Your task to perform on an android device: change timer sound Image 0: 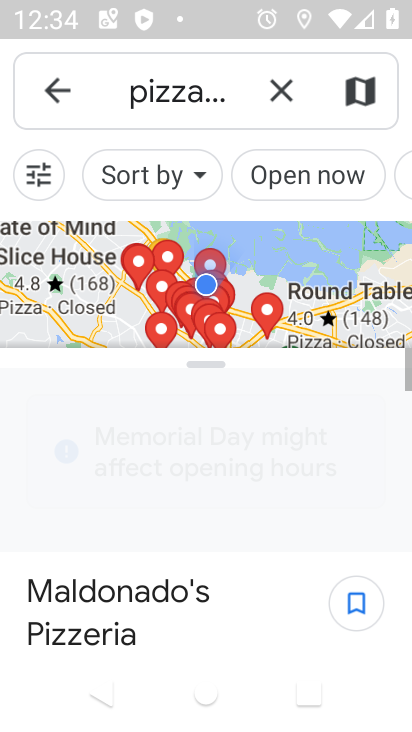
Step 0: press home button
Your task to perform on an android device: change timer sound Image 1: 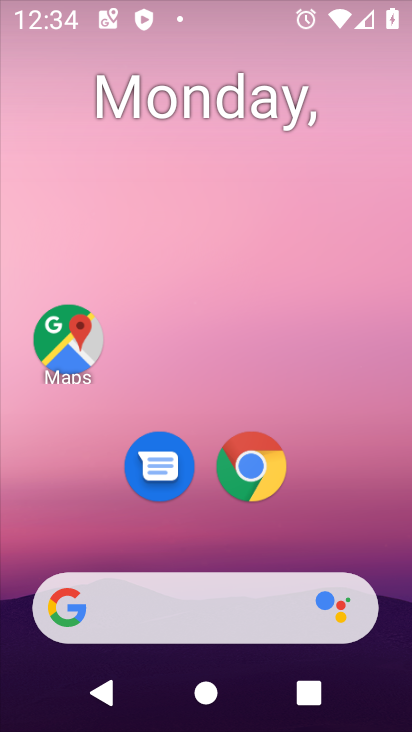
Step 1: drag from (391, 634) to (242, 31)
Your task to perform on an android device: change timer sound Image 2: 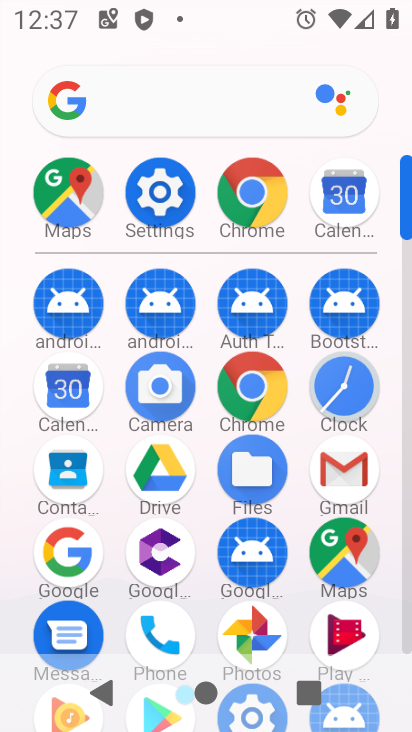
Step 2: click (345, 376)
Your task to perform on an android device: change timer sound Image 3: 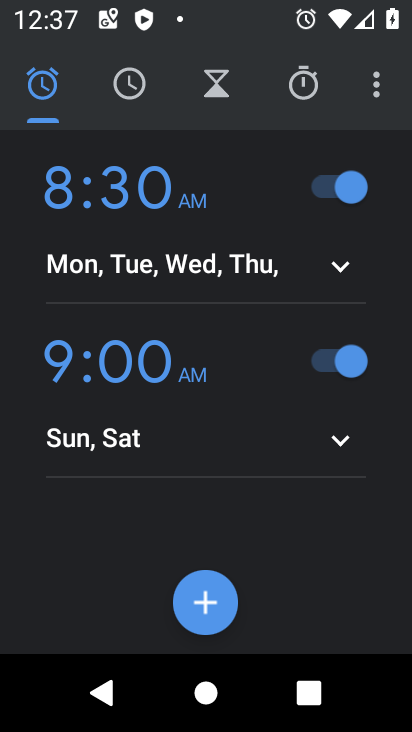
Step 3: click (380, 70)
Your task to perform on an android device: change timer sound Image 4: 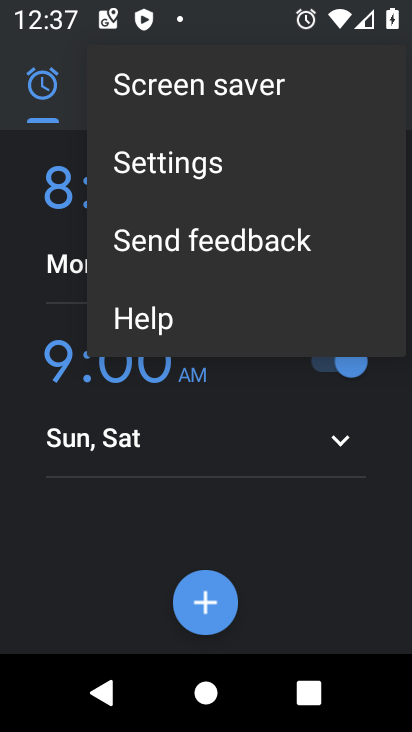
Step 4: click (164, 172)
Your task to perform on an android device: change timer sound Image 5: 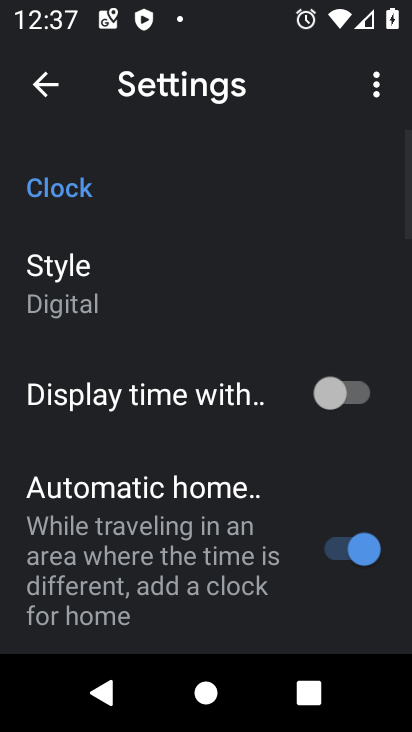
Step 5: drag from (131, 622) to (163, 89)
Your task to perform on an android device: change timer sound Image 6: 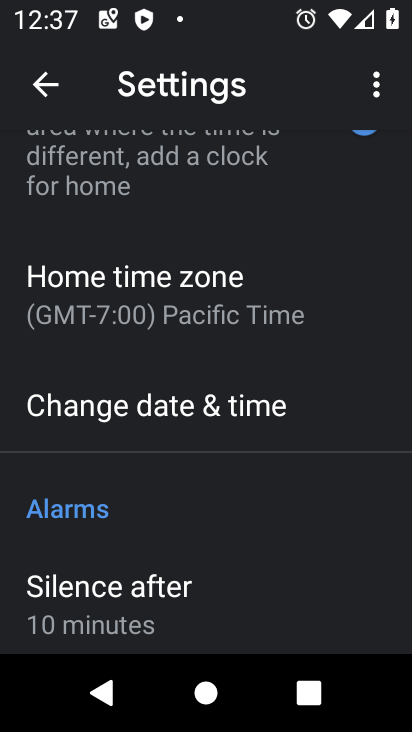
Step 6: drag from (124, 605) to (158, 170)
Your task to perform on an android device: change timer sound Image 7: 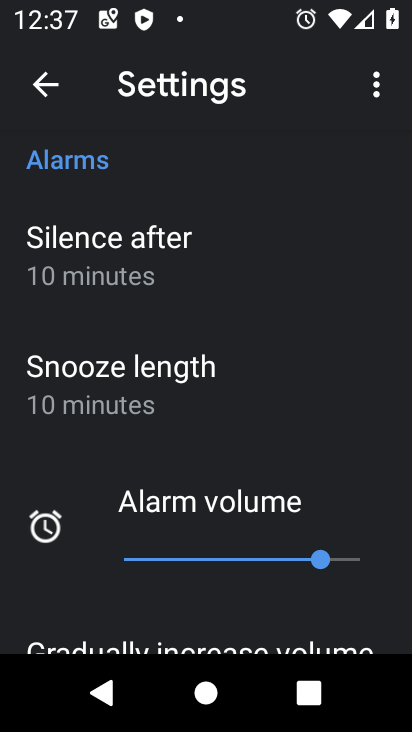
Step 7: drag from (150, 575) to (176, 140)
Your task to perform on an android device: change timer sound Image 8: 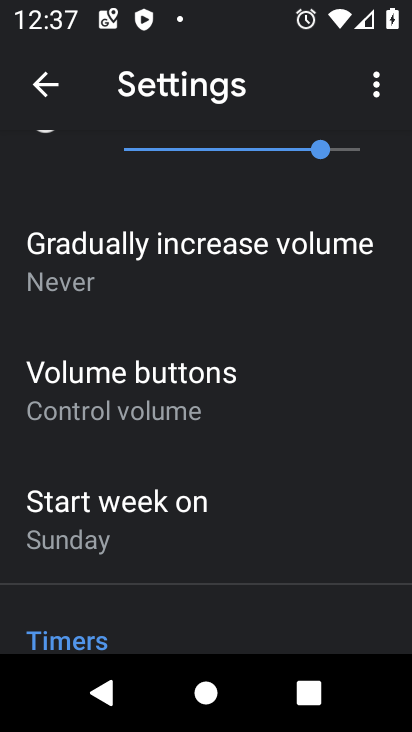
Step 8: drag from (65, 535) to (121, 138)
Your task to perform on an android device: change timer sound Image 9: 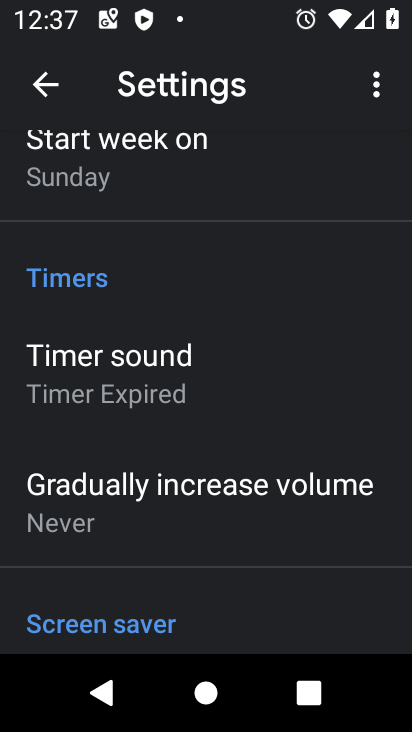
Step 9: click (207, 386)
Your task to perform on an android device: change timer sound Image 10: 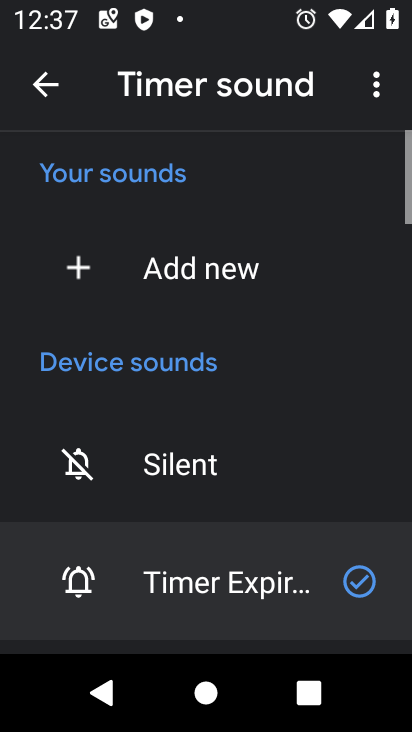
Step 10: drag from (205, 547) to (222, 75)
Your task to perform on an android device: change timer sound Image 11: 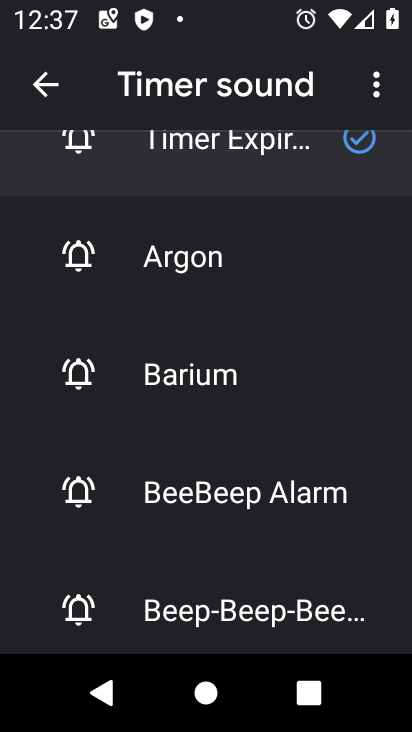
Step 11: click (223, 500)
Your task to perform on an android device: change timer sound Image 12: 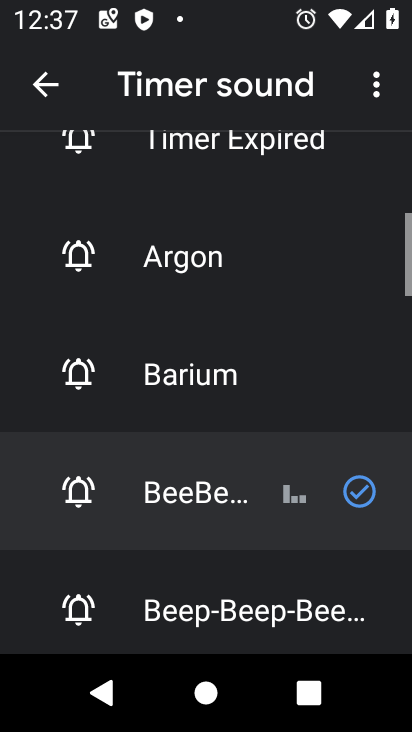
Step 12: task complete